Your task to perform on an android device: Show me popular videos on Youtube Image 0: 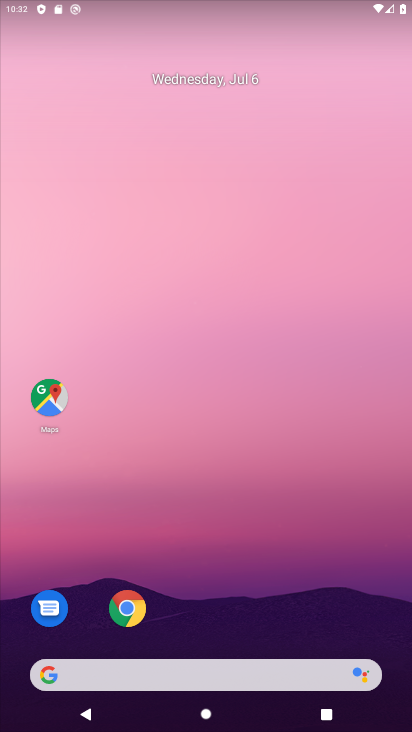
Step 0: click (319, 73)
Your task to perform on an android device: Show me popular videos on Youtube Image 1: 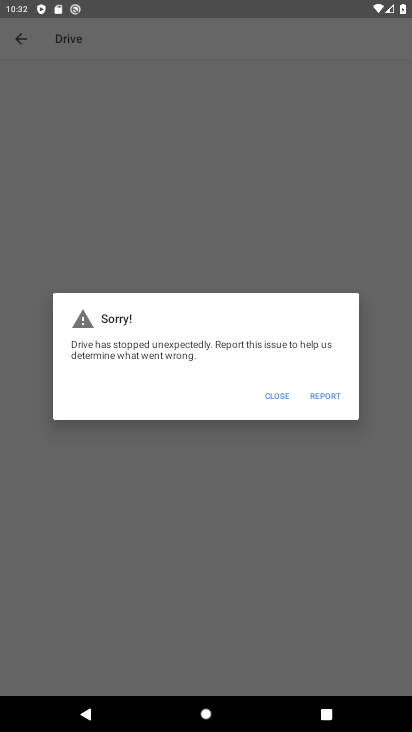
Step 1: press home button
Your task to perform on an android device: Show me popular videos on Youtube Image 2: 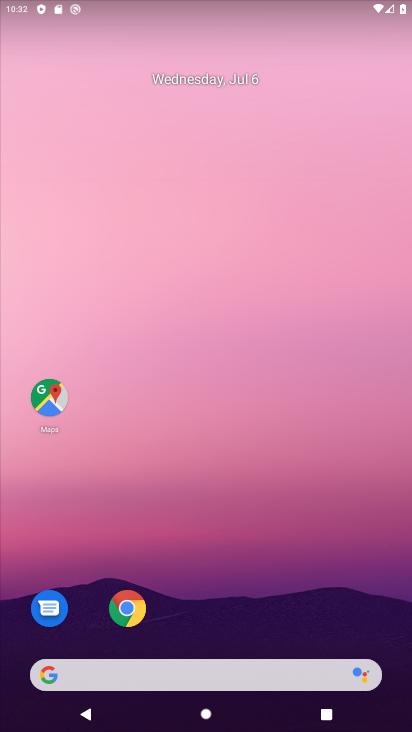
Step 2: drag from (222, 626) to (193, 114)
Your task to perform on an android device: Show me popular videos on Youtube Image 3: 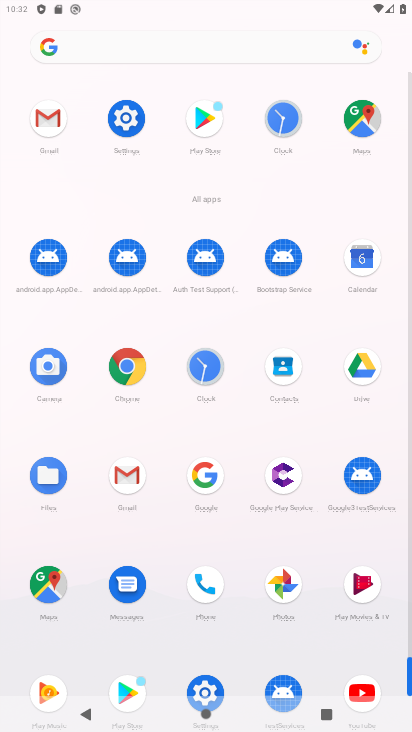
Step 3: click (41, 111)
Your task to perform on an android device: Show me popular videos on Youtube Image 4: 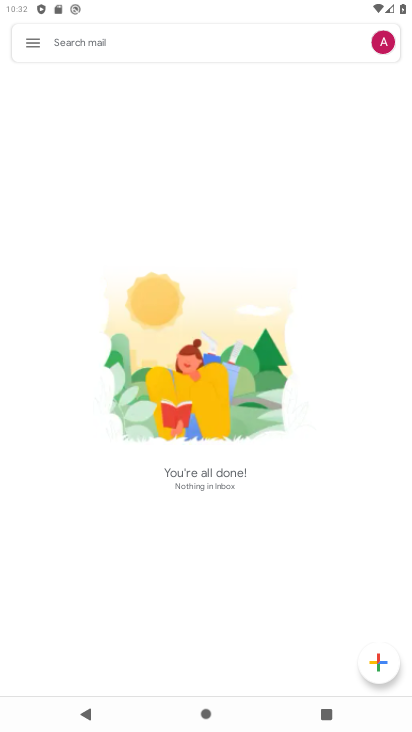
Step 4: press home button
Your task to perform on an android device: Show me popular videos on Youtube Image 5: 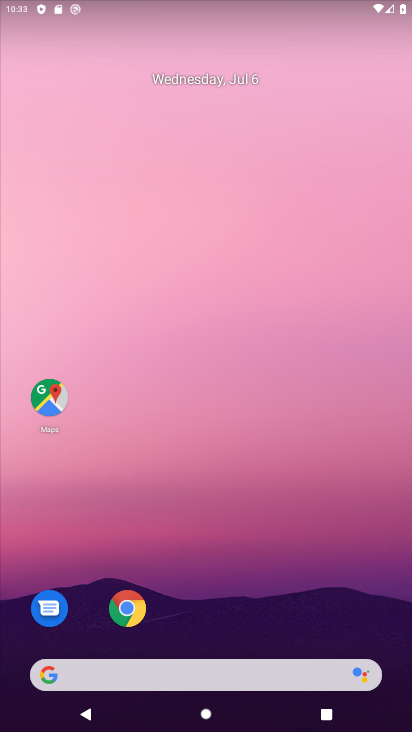
Step 5: drag from (243, 577) to (237, 228)
Your task to perform on an android device: Show me popular videos on Youtube Image 6: 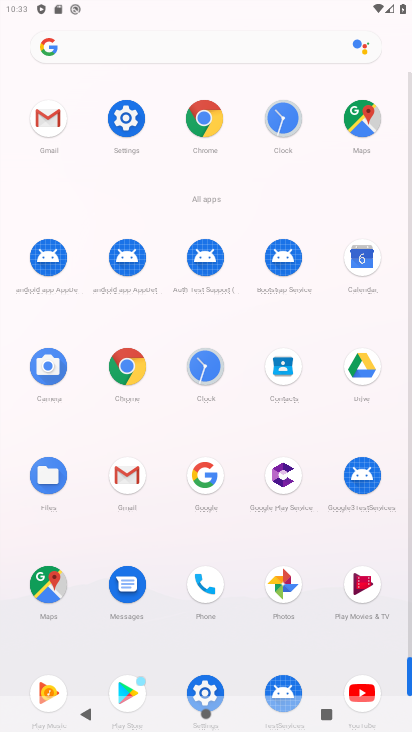
Step 6: click (354, 686)
Your task to perform on an android device: Show me popular videos on Youtube Image 7: 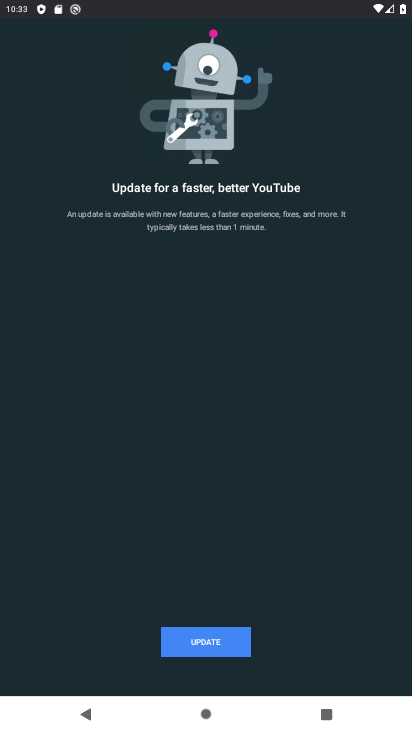
Step 7: click (203, 652)
Your task to perform on an android device: Show me popular videos on Youtube Image 8: 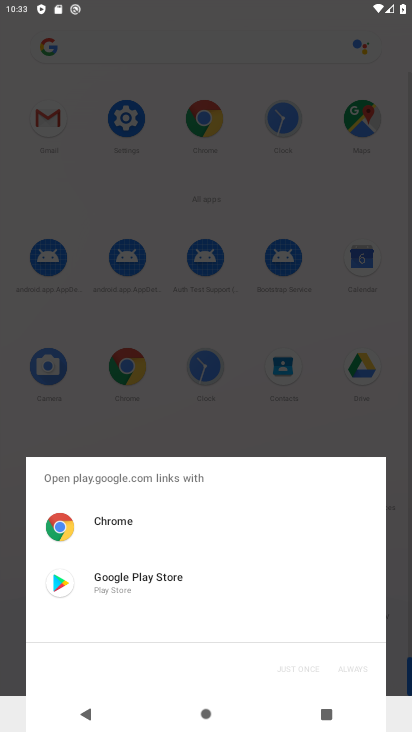
Step 8: click (152, 577)
Your task to perform on an android device: Show me popular videos on Youtube Image 9: 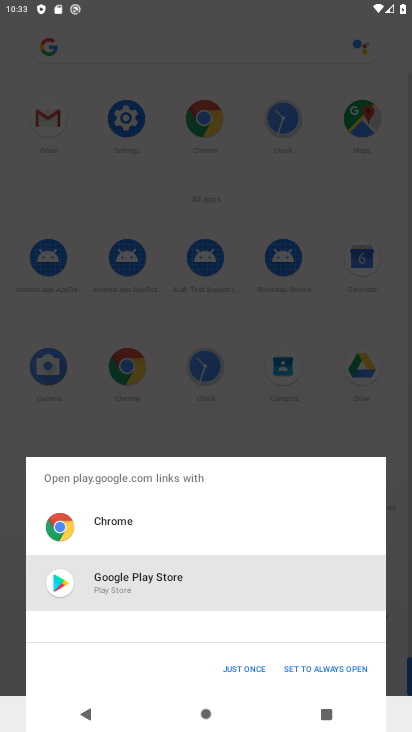
Step 9: click (260, 671)
Your task to perform on an android device: Show me popular videos on Youtube Image 10: 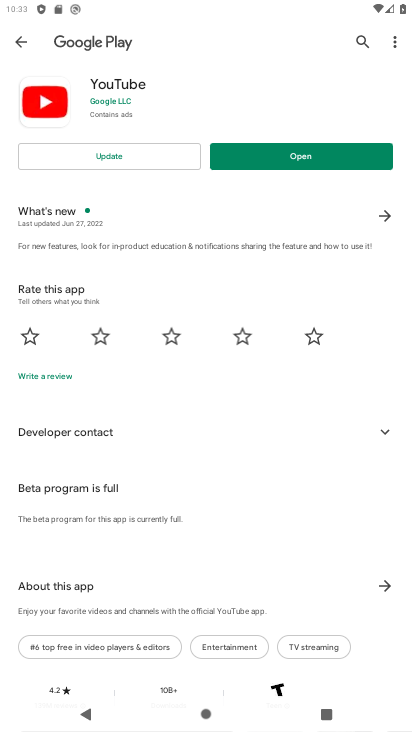
Step 10: click (176, 148)
Your task to perform on an android device: Show me popular videos on Youtube Image 11: 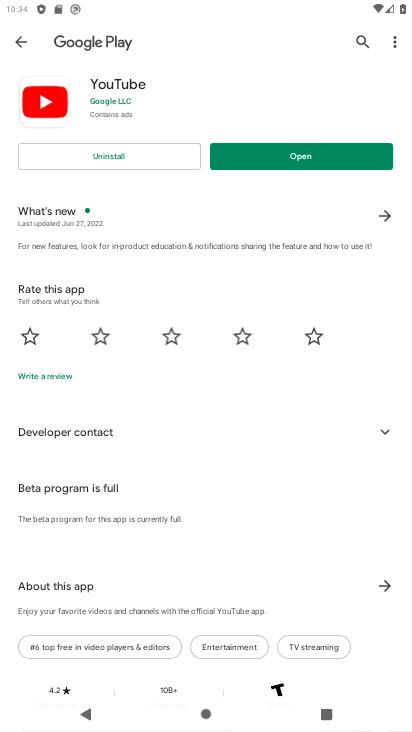
Step 11: click (307, 147)
Your task to perform on an android device: Show me popular videos on Youtube Image 12: 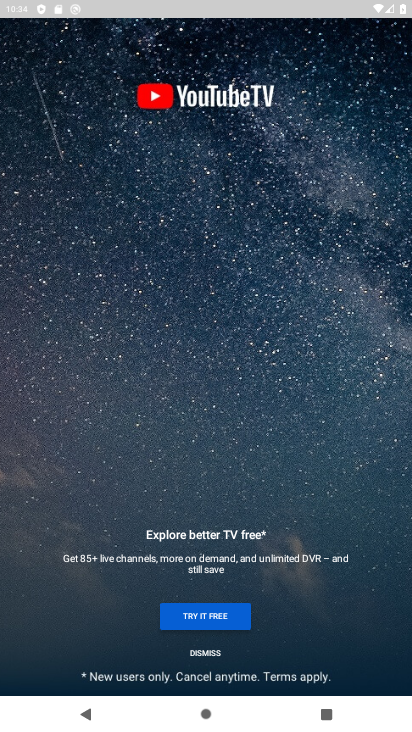
Step 12: task complete